Your task to perform on an android device: Open Reddit.com Image 0: 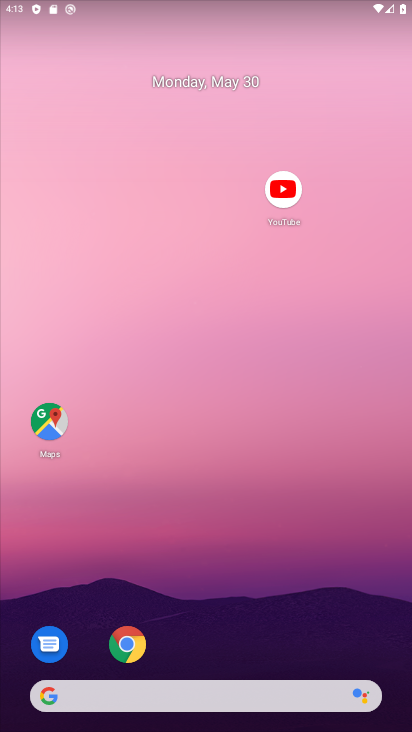
Step 0: click (176, 694)
Your task to perform on an android device: Open Reddit.com Image 1: 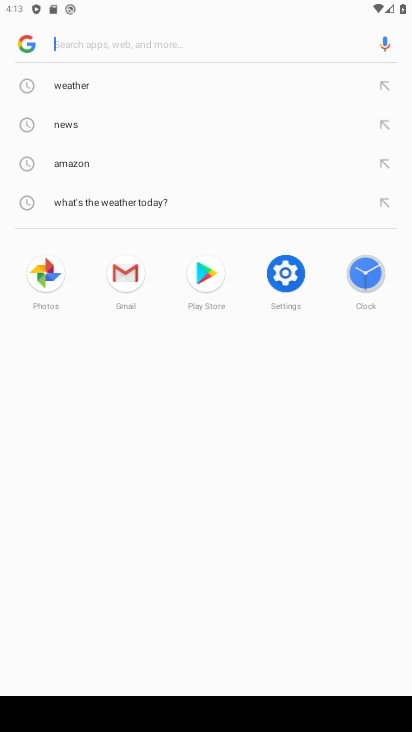
Step 1: type "reddit"
Your task to perform on an android device: Open Reddit.com Image 2: 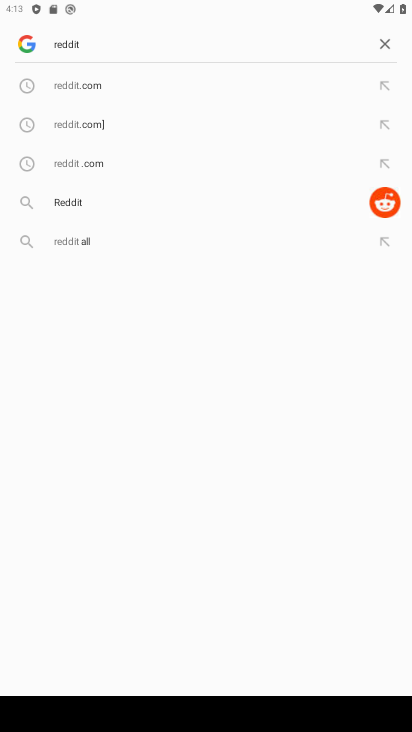
Step 2: click (94, 85)
Your task to perform on an android device: Open Reddit.com Image 3: 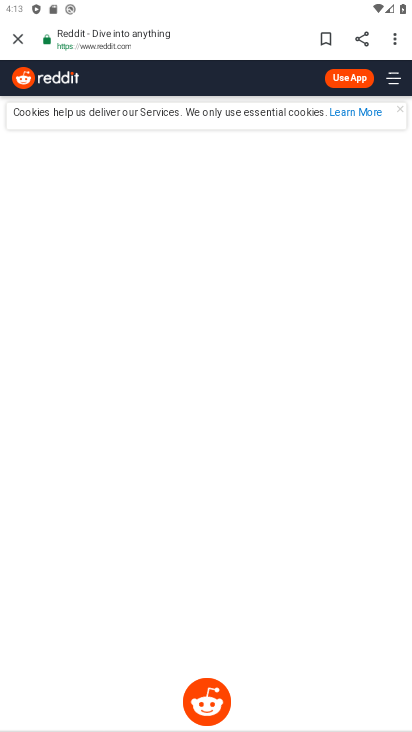
Step 3: task complete